Your task to perform on an android device: Go to ESPN.com Image 0: 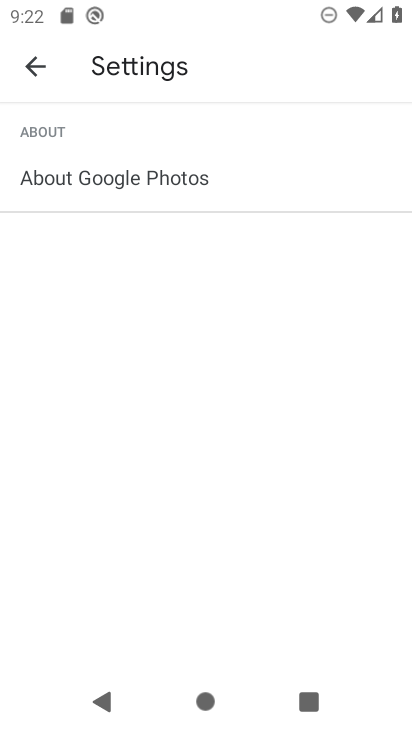
Step 0: press home button
Your task to perform on an android device: Go to ESPN.com Image 1: 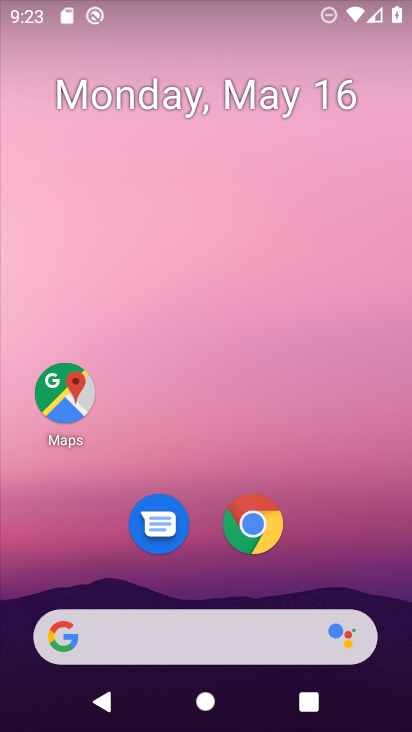
Step 1: click (260, 631)
Your task to perform on an android device: Go to ESPN.com Image 2: 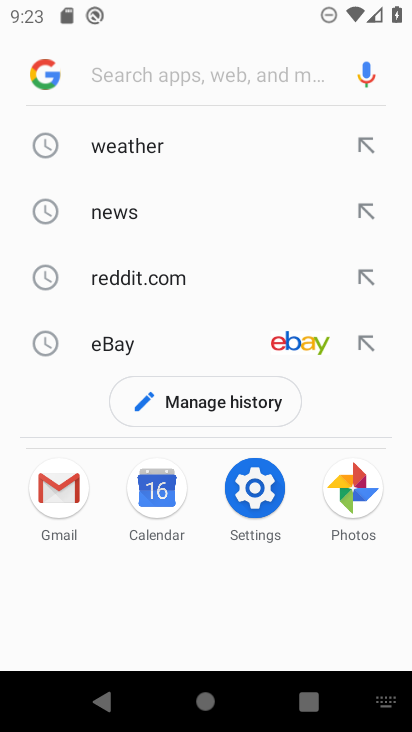
Step 2: type "espn.com"
Your task to perform on an android device: Go to ESPN.com Image 3: 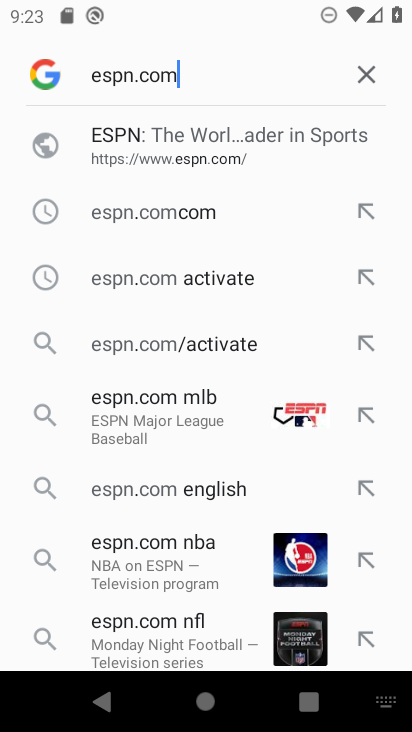
Step 3: click (101, 139)
Your task to perform on an android device: Go to ESPN.com Image 4: 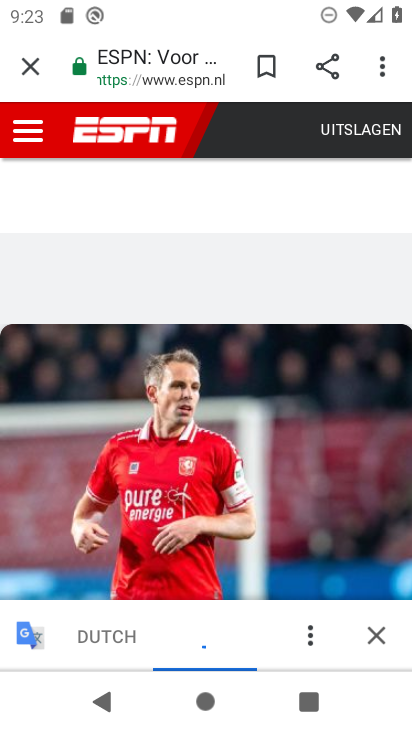
Step 4: task complete